Your task to perform on an android device: Open the Play Movies app and select the watchlist tab. Image 0: 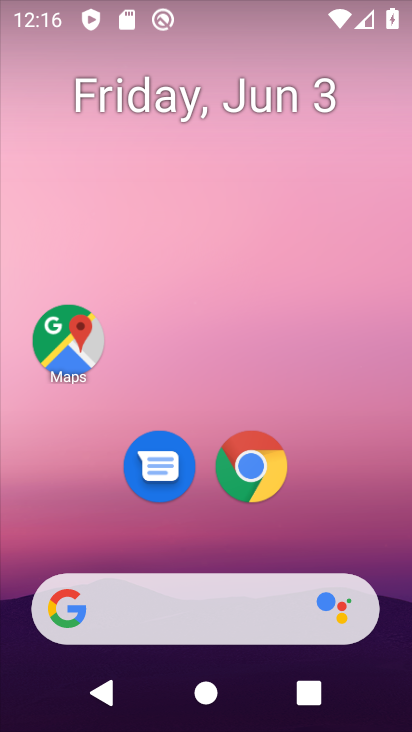
Step 0: drag from (164, 728) to (126, 63)
Your task to perform on an android device: Open the Play Movies app and select the watchlist tab. Image 1: 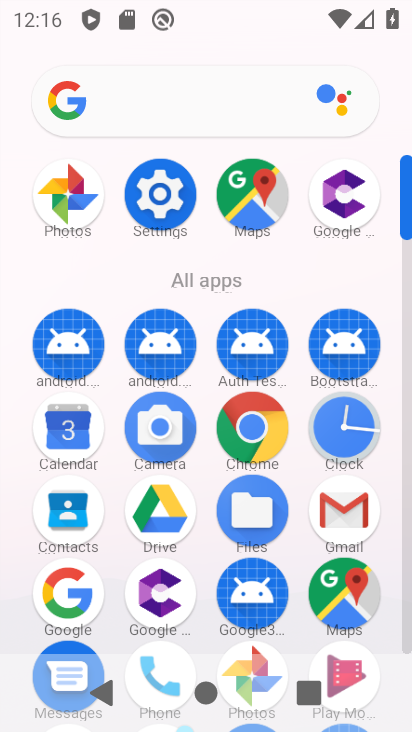
Step 1: drag from (306, 621) to (301, 348)
Your task to perform on an android device: Open the Play Movies app and select the watchlist tab. Image 2: 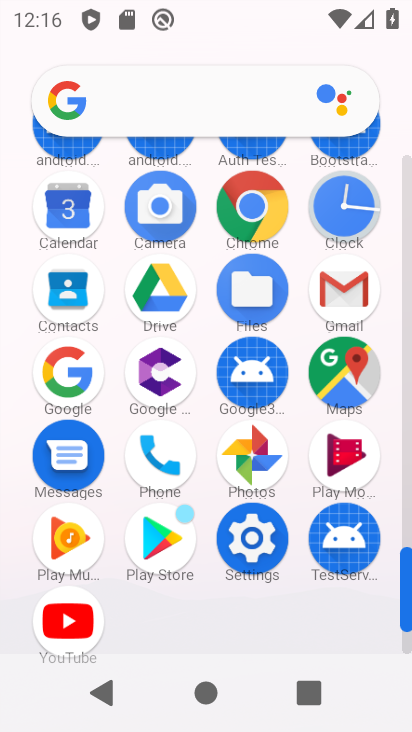
Step 2: click (335, 471)
Your task to perform on an android device: Open the Play Movies app and select the watchlist tab. Image 3: 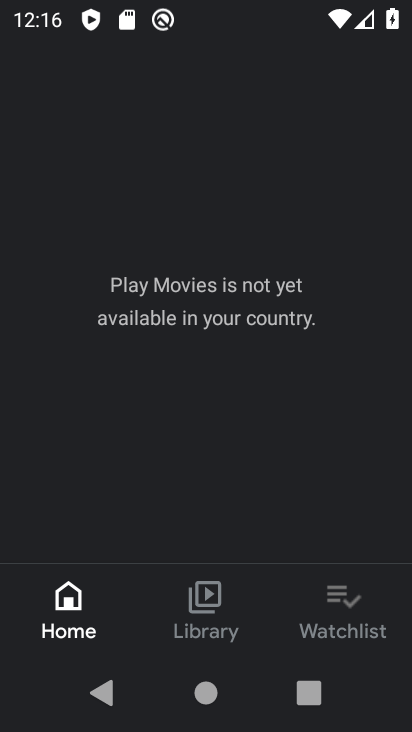
Step 3: click (355, 608)
Your task to perform on an android device: Open the Play Movies app and select the watchlist tab. Image 4: 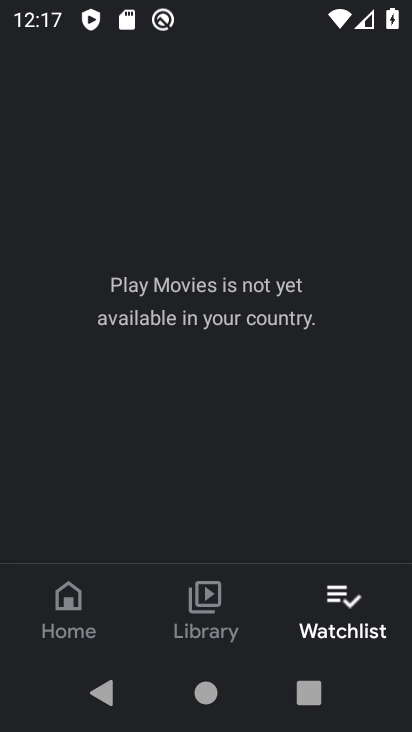
Step 4: task complete